Your task to perform on an android device: What's a good restaurant in Sacramento? Image 0: 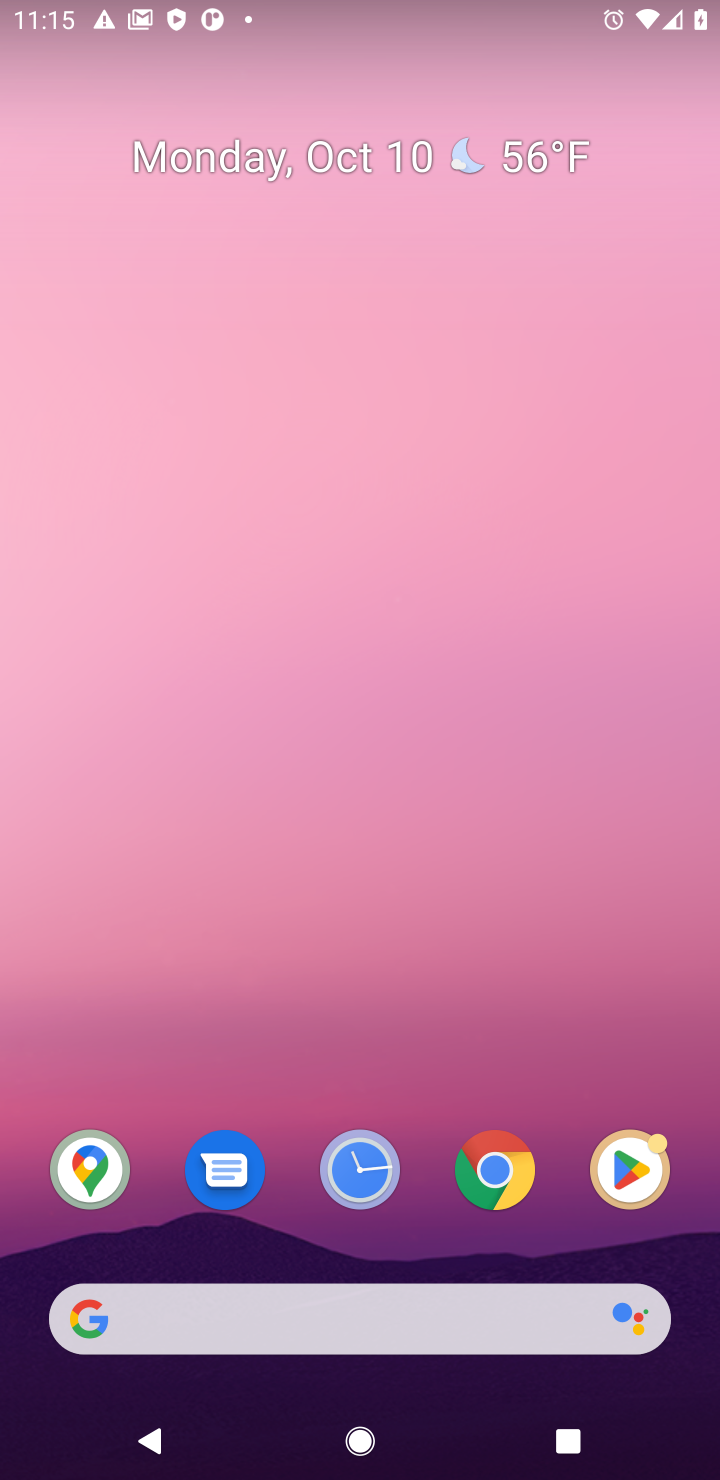
Step 0: drag from (381, 1214) to (444, 485)
Your task to perform on an android device: What's a good restaurant in Sacramento? Image 1: 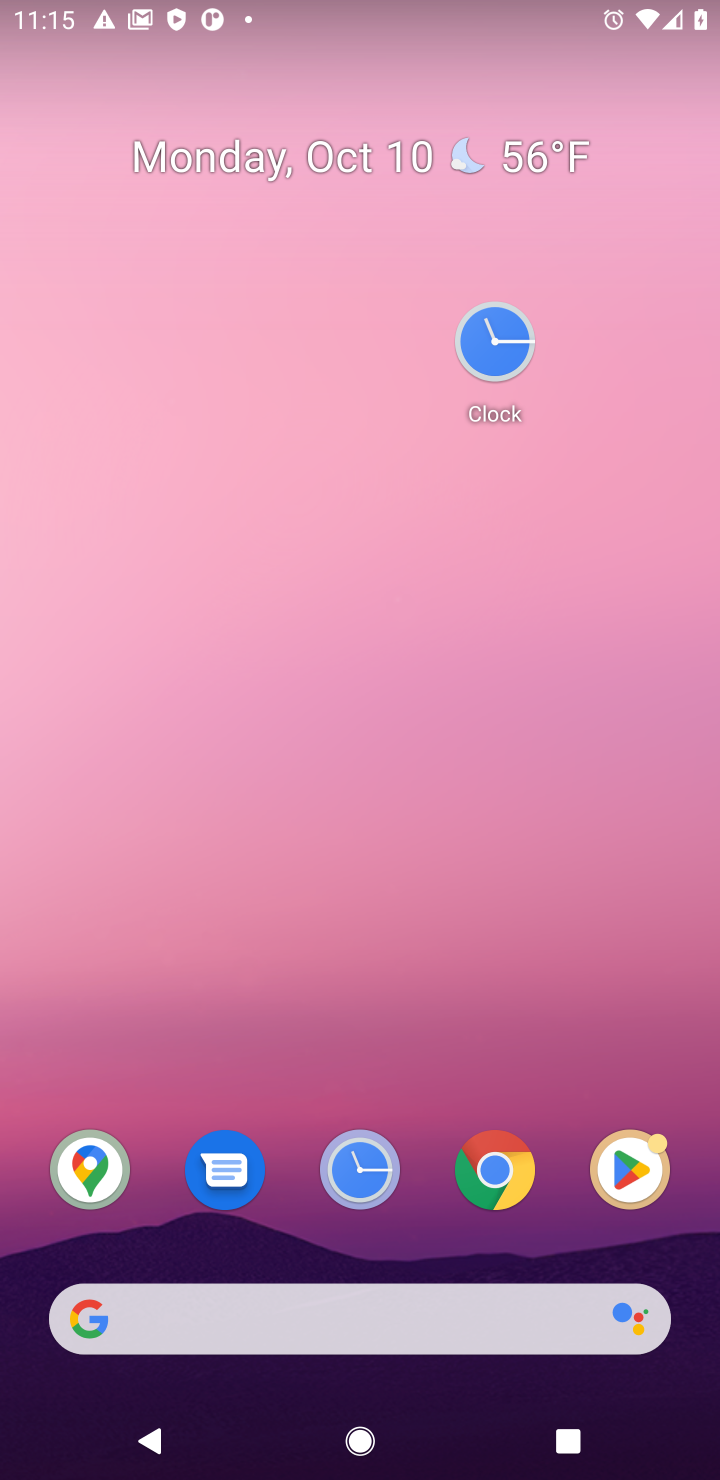
Step 1: drag from (397, 1186) to (390, 316)
Your task to perform on an android device: What's a good restaurant in Sacramento? Image 2: 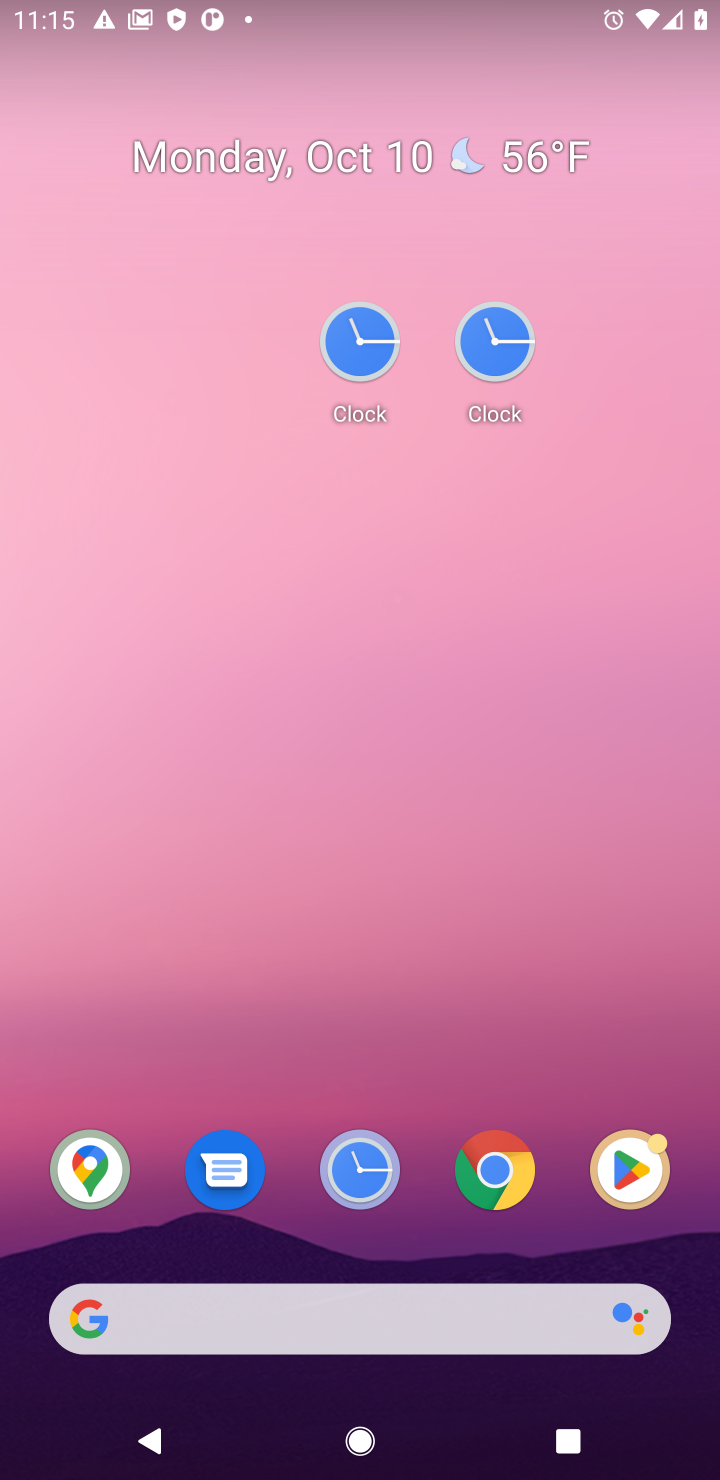
Step 2: drag from (449, 1106) to (428, 234)
Your task to perform on an android device: What's a good restaurant in Sacramento? Image 3: 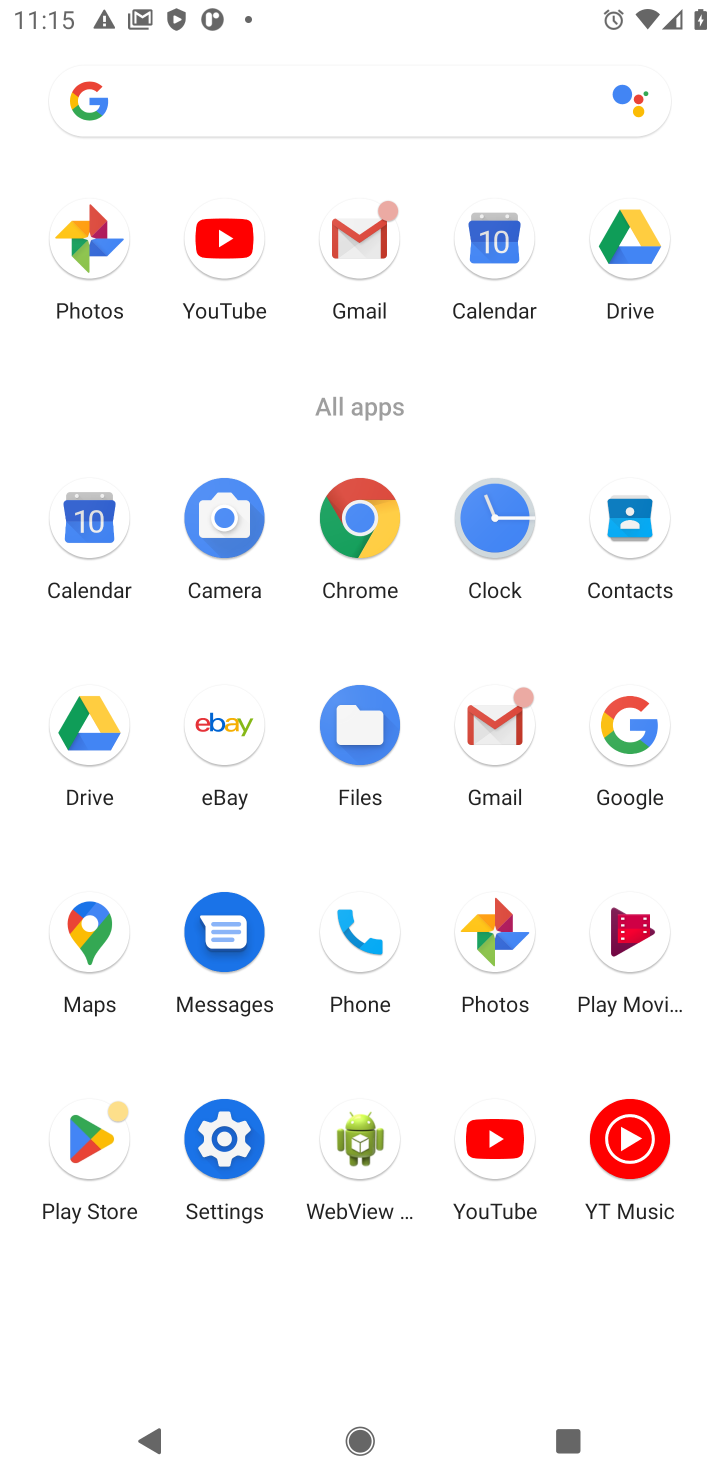
Step 3: click (618, 755)
Your task to perform on an android device: What's a good restaurant in Sacramento? Image 4: 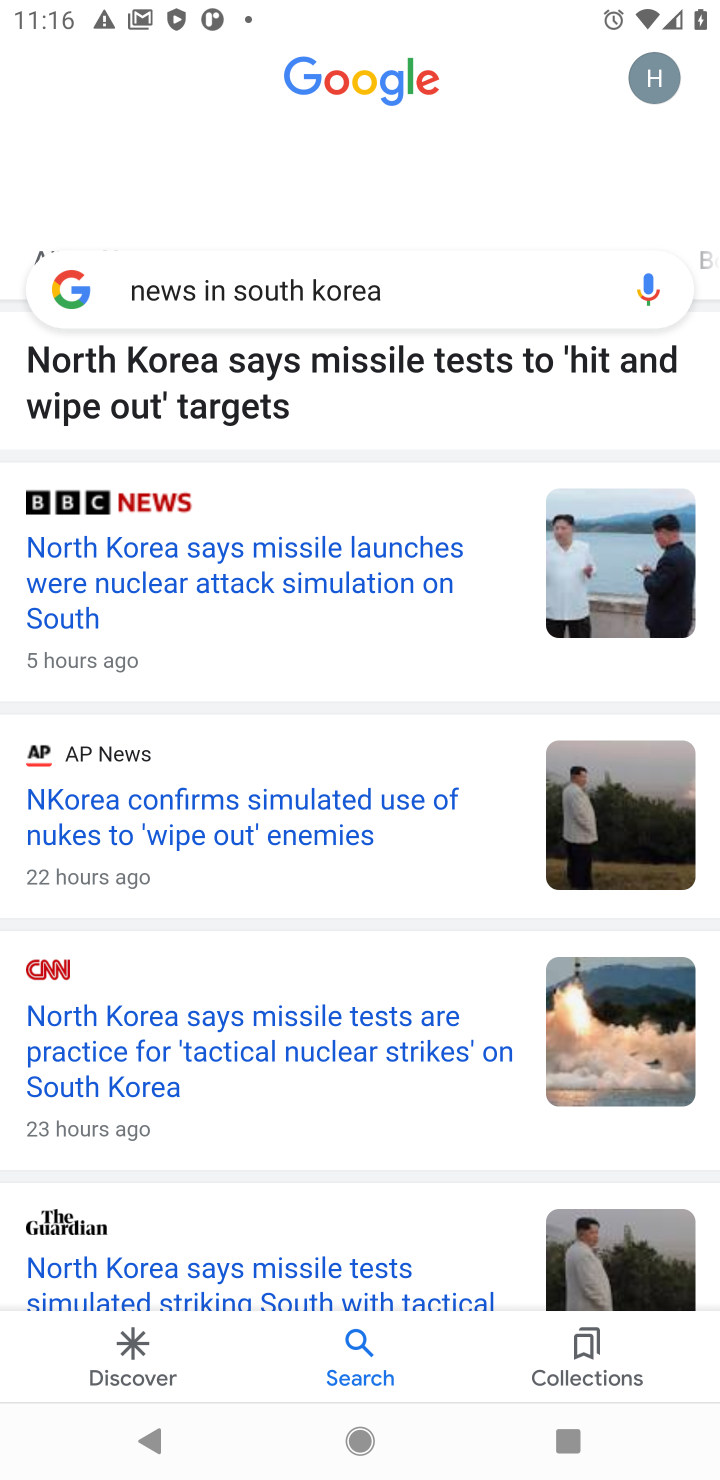
Step 4: click (530, 267)
Your task to perform on an android device: What's a good restaurant in Sacramento? Image 5: 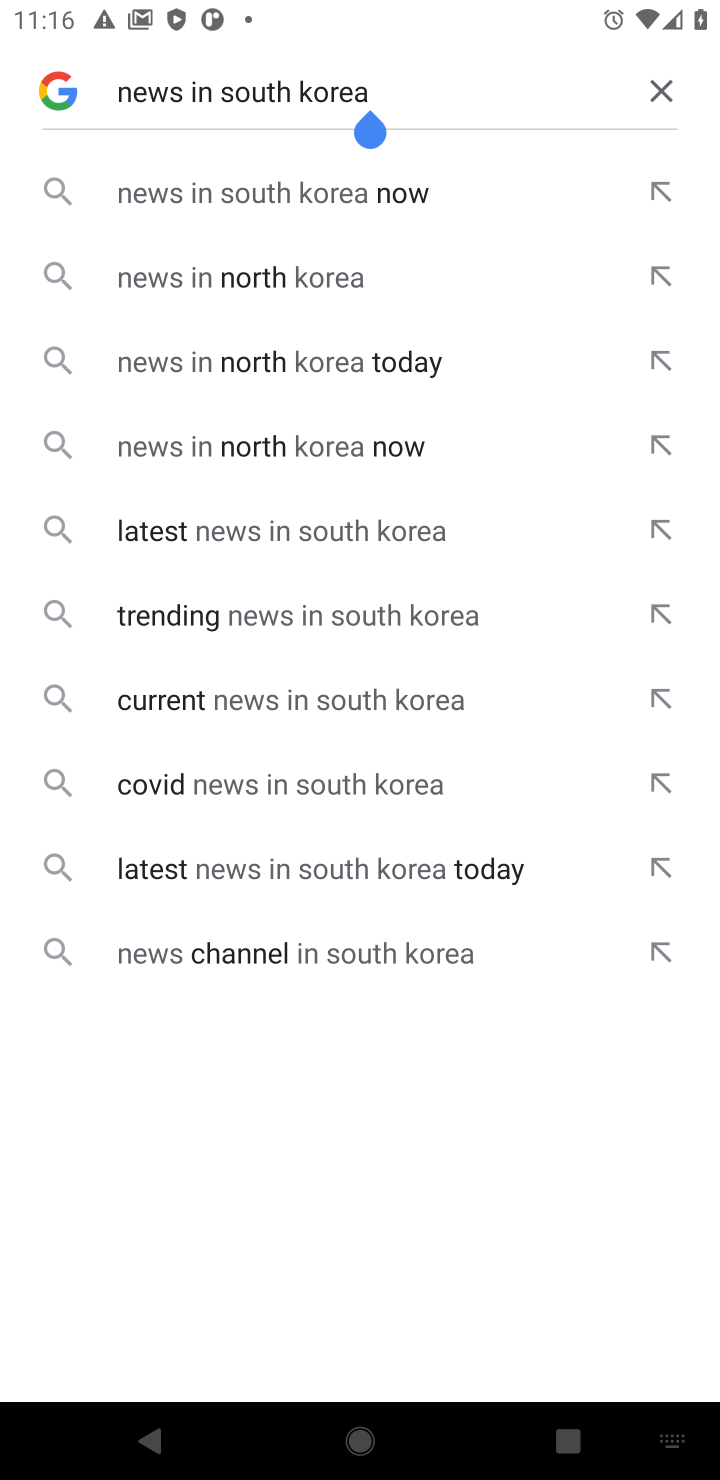
Step 5: click (633, 112)
Your task to perform on an android device: What's a good restaurant in Sacramento? Image 6: 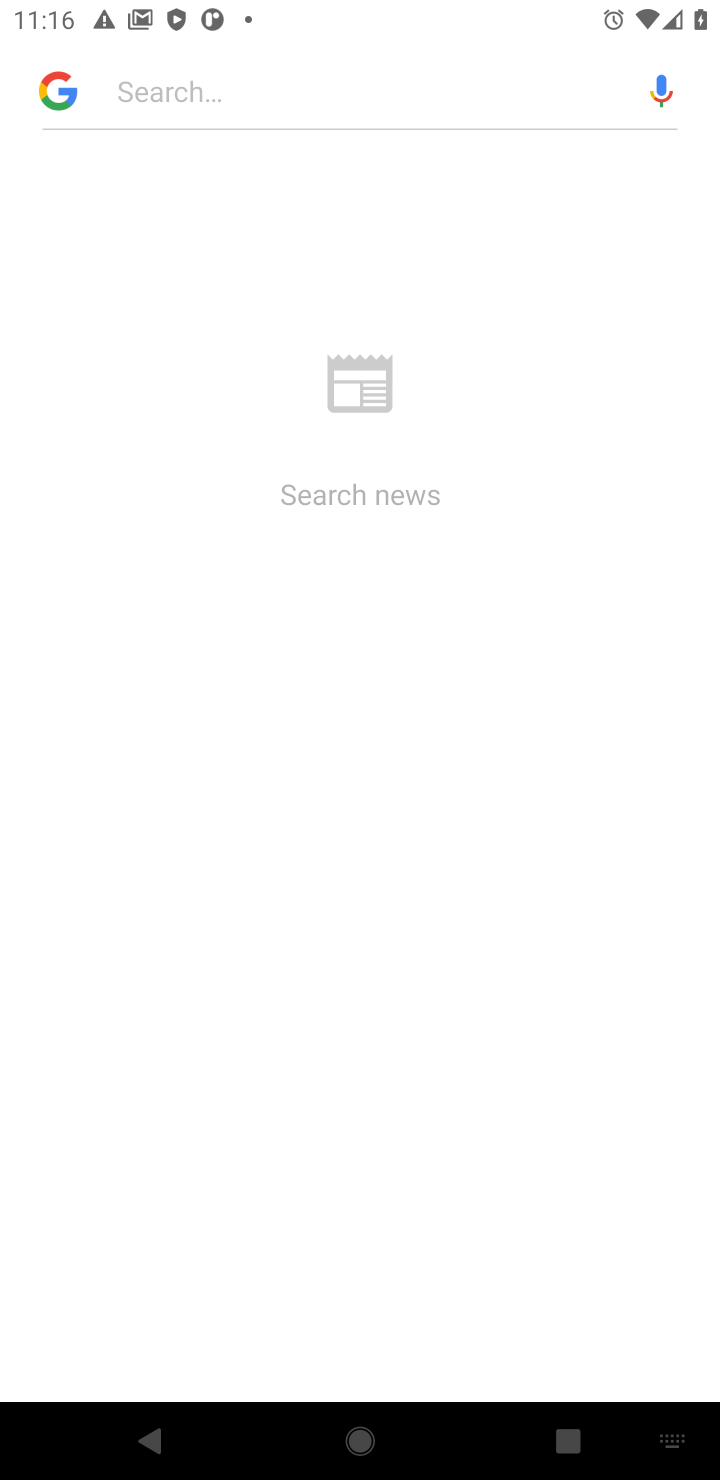
Step 6: type "good restaurant in Sacramento"
Your task to perform on an android device: What's a good restaurant in Sacramento? Image 7: 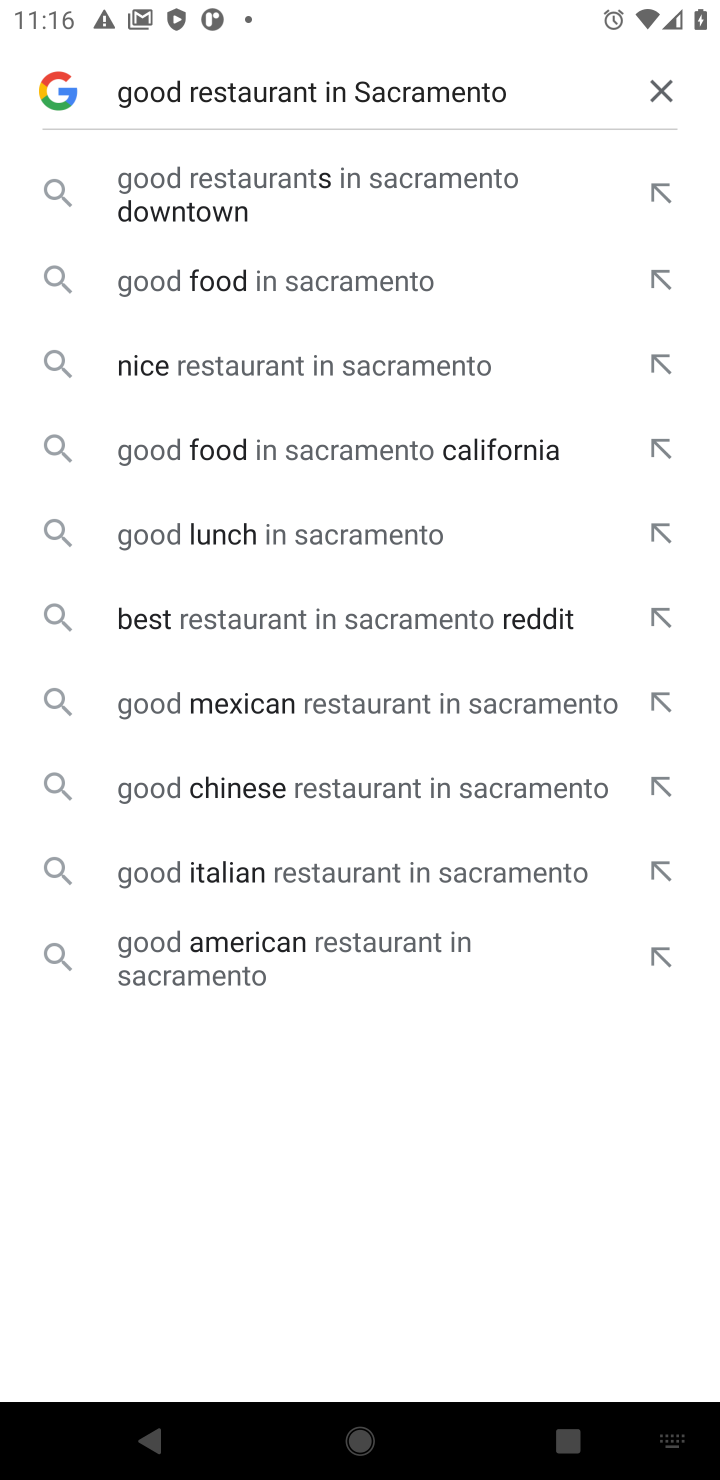
Step 7: click (428, 364)
Your task to perform on an android device: What's a good restaurant in Sacramento? Image 8: 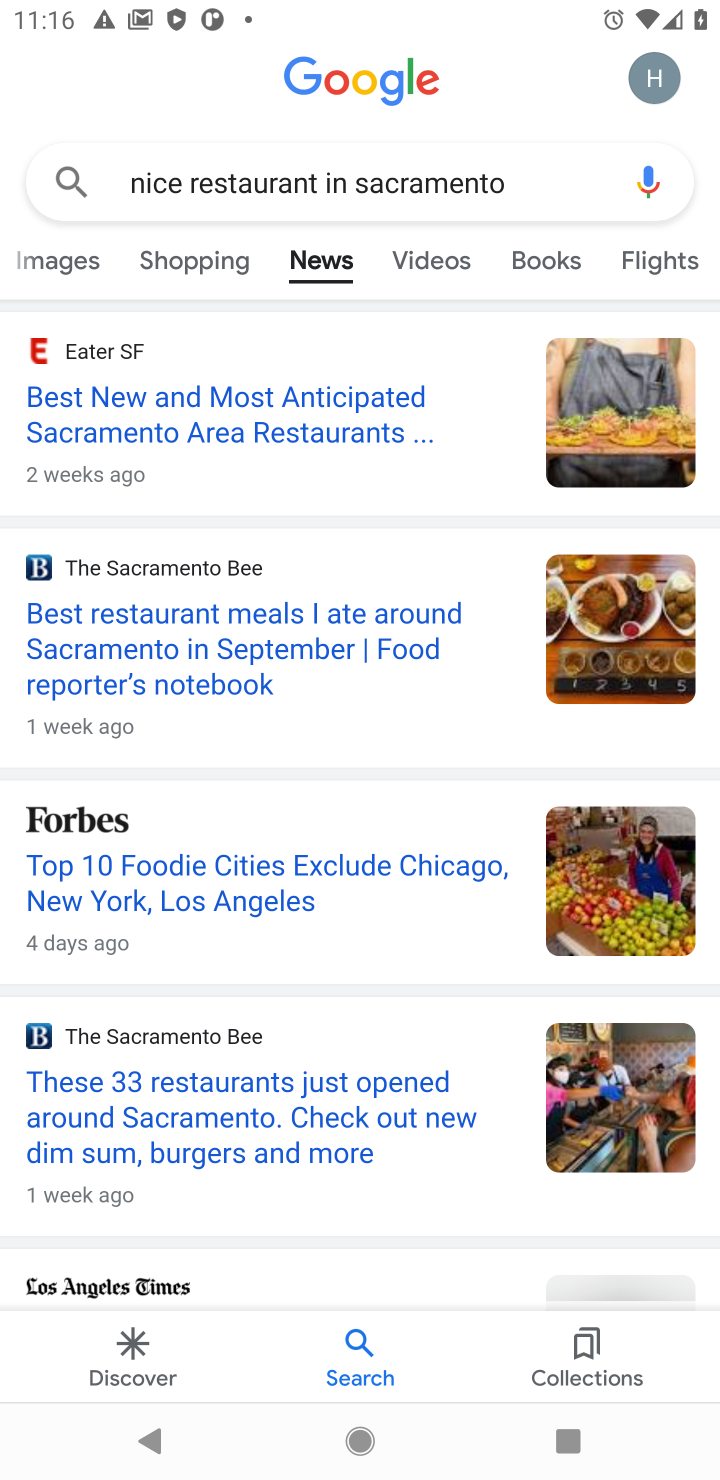
Step 8: drag from (87, 260) to (533, 282)
Your task to perform on an android device: What's a good restaurant in Sacramento? Image 9: 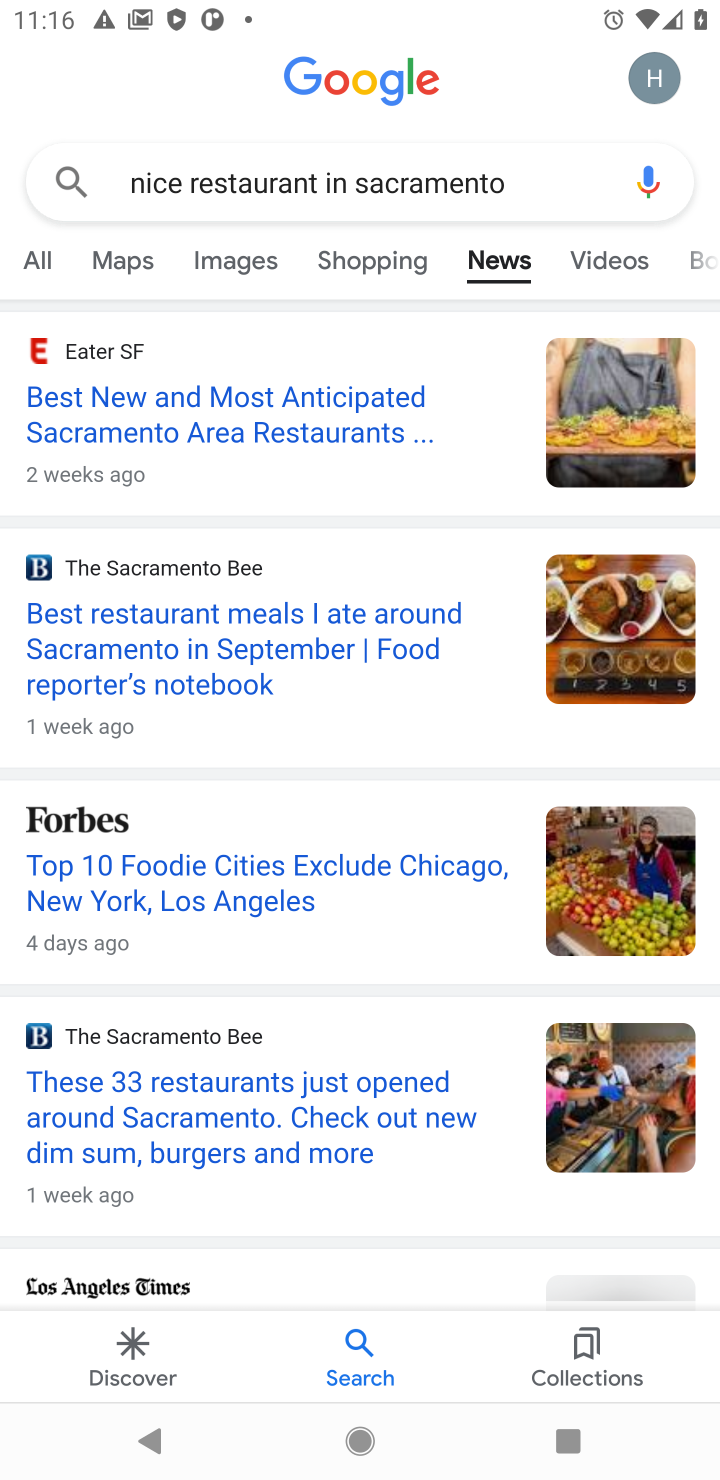
Step 9: click (44, 266)
Your task to perform on an android device: What's a good restaurant in Sacramento? Image 10: 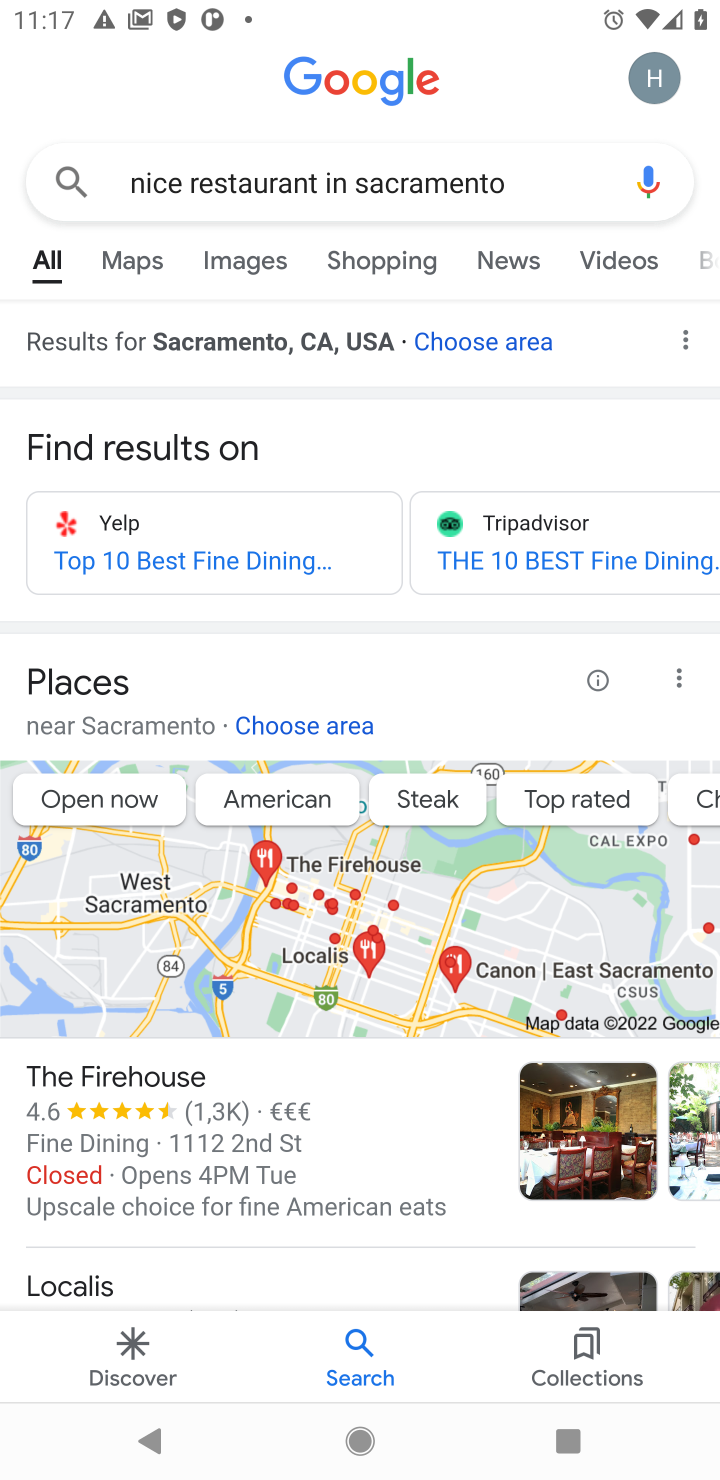
Step 10: task complete